Your task to perform on an android device: show emergency info Image 0: 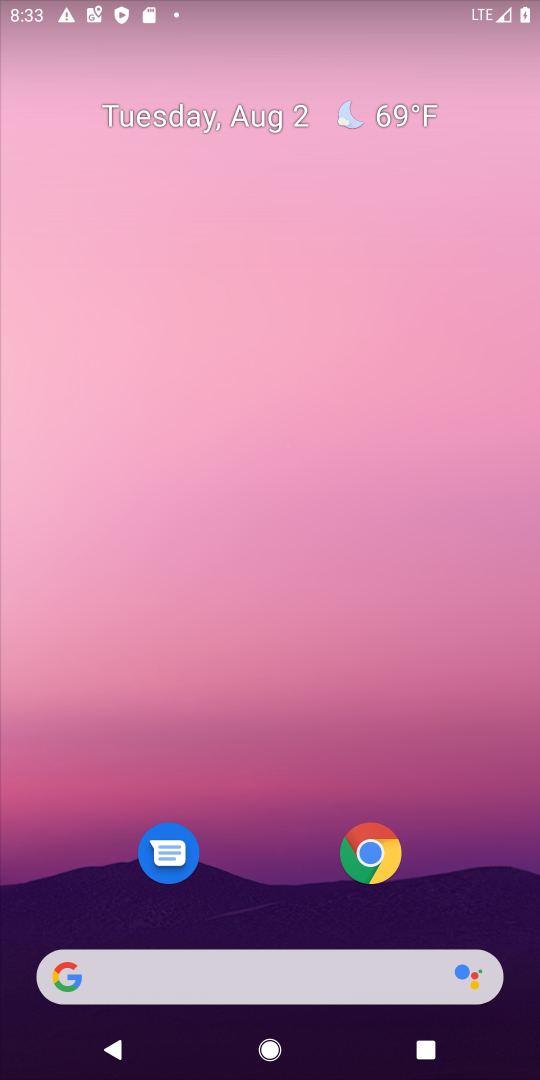
Step 0: drag from (243, 906) to (137, 167)
Your task to perform on an android device: show emergency info Image 1: 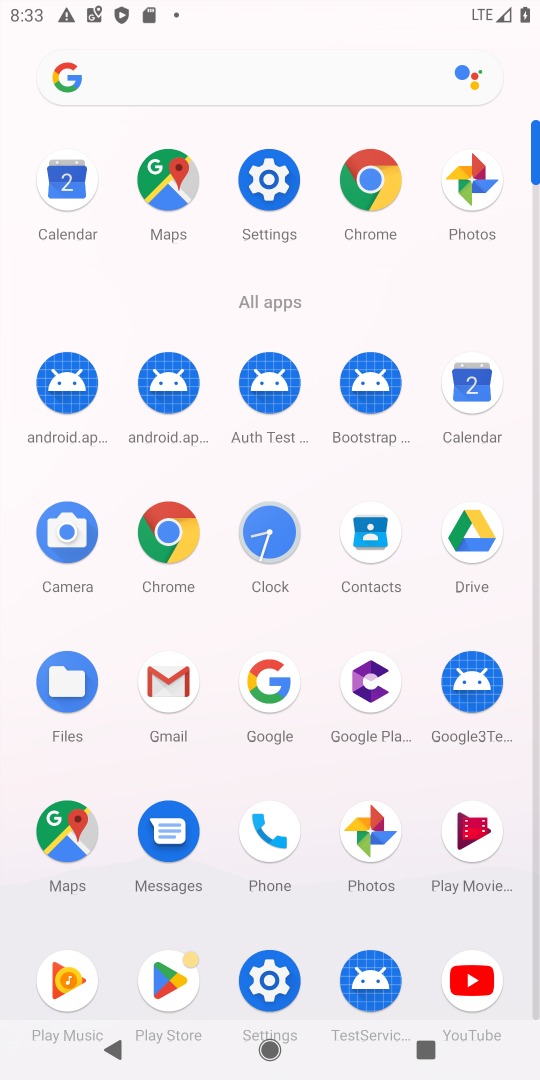
Step 1: click (263, 190)
Your task to perform on an android device: show emergency info Image 2: 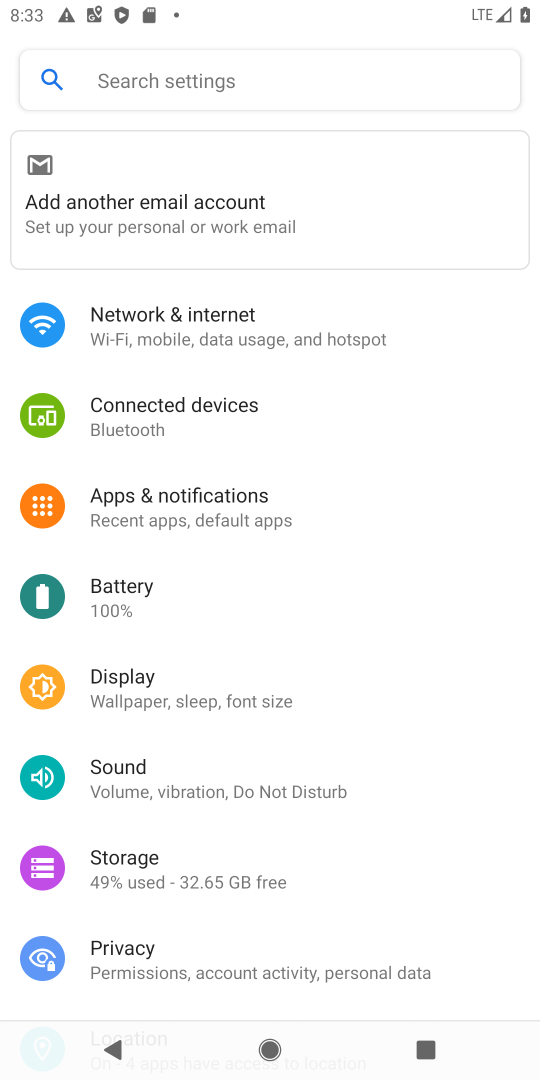
Step 2: drag from (232, 930) to (173, 304)
Your task to perform on an android device: show emergency info Image 3: 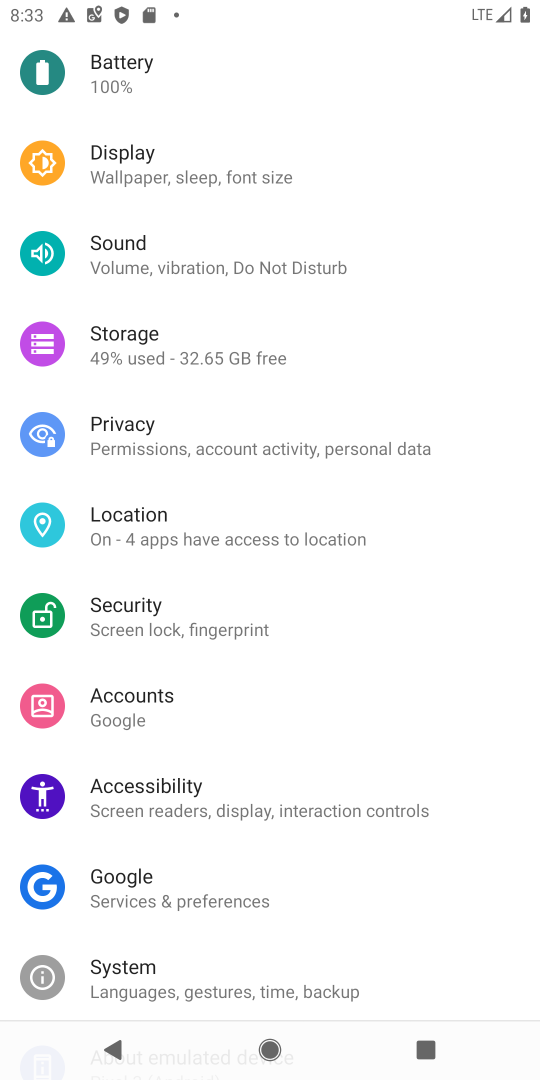
Step 3: drag from (225, 907) to (191, 325)
Your task to perform on an android device: show emergency info Image 4: 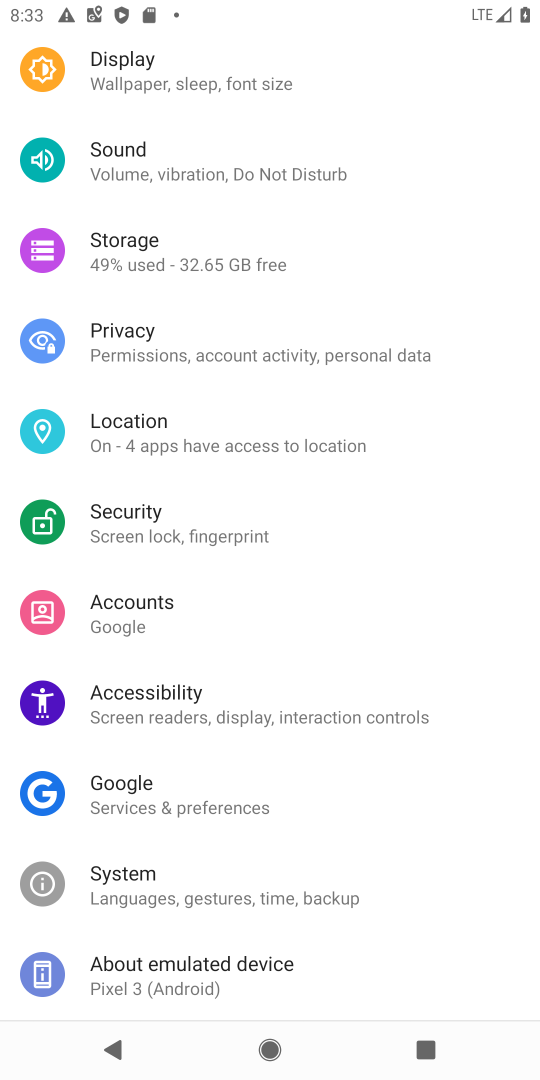
Step 4: click (230, 978)
Your task to perform on an android device: show emergency info Image 5: 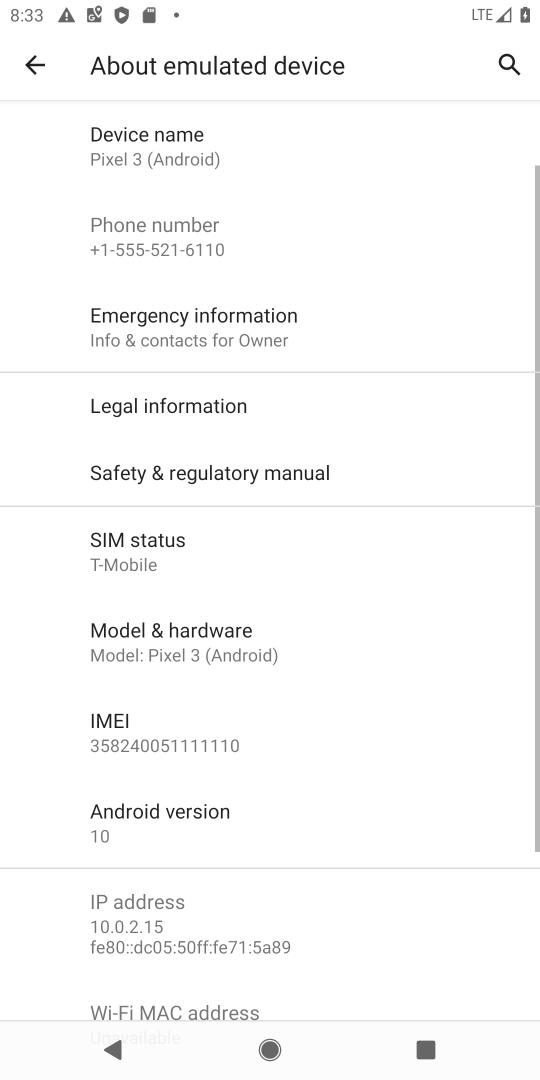
Step 5: click (243, 339)
Your task to perform on an android device: show emergency info Image 6: 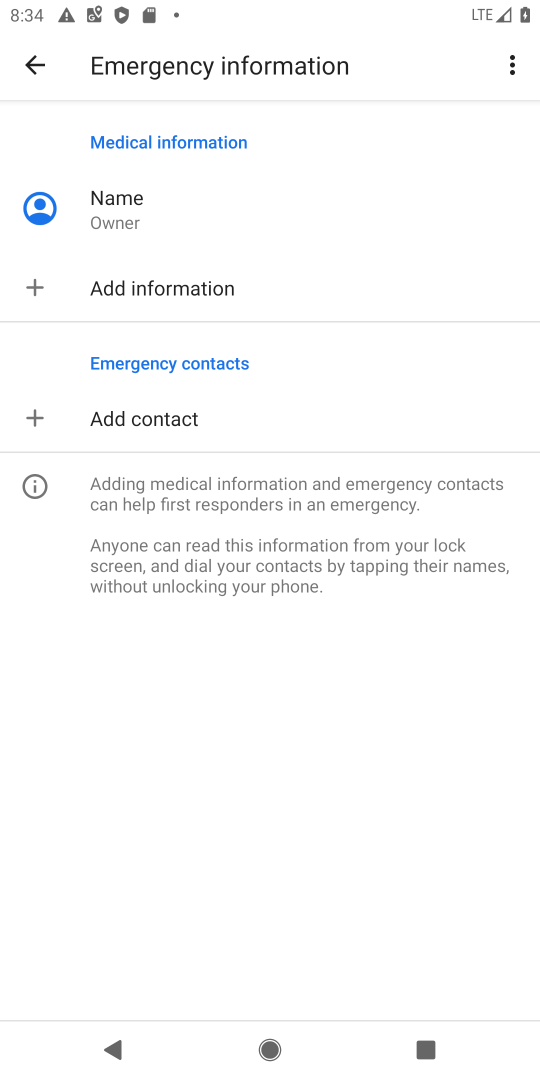
Step 6: task complete